Your task to perform on an android device: Open Google Chrome and open the bookmarks view Image 0: 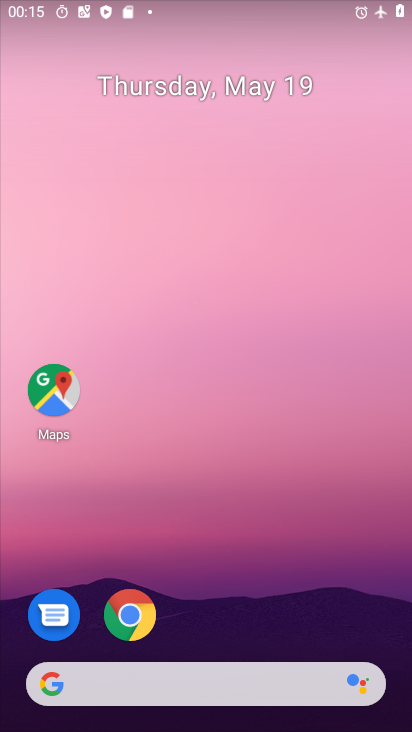
Step 0: click (126, 604)
Your task to perform on an android device: Open Google Chrome and open the bookmarks view Image 1: 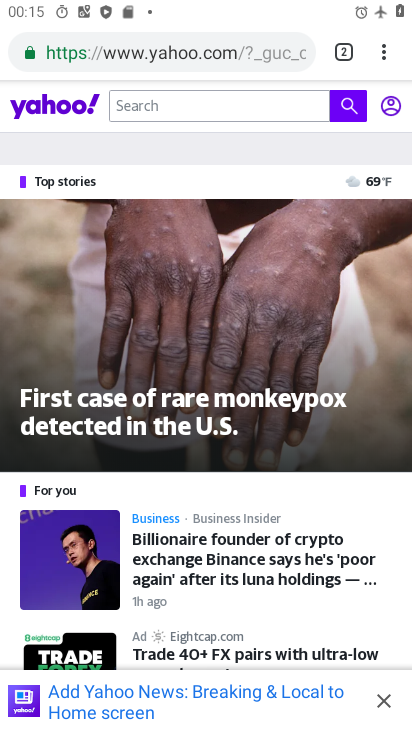
Step 1: click (385, 41)
Your task to perform on an android device: Open Google Chrome and open the bookmarks view Image 2: 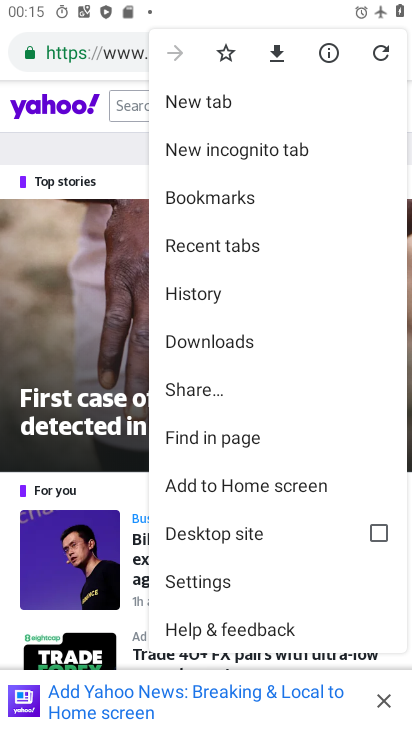
Step 2: click (256, 198)
Your task to perform on an android device: Open Google Chrome and open the bookmarks view Image 3: 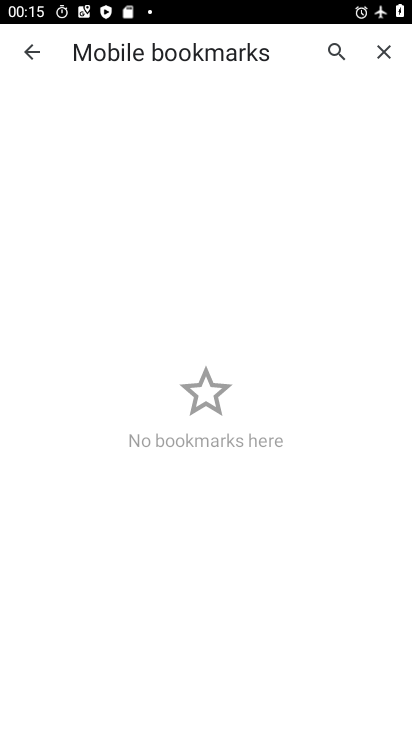
Step 3: task complete